Your task to perform on an android device: Go to privacy settings Image 0: 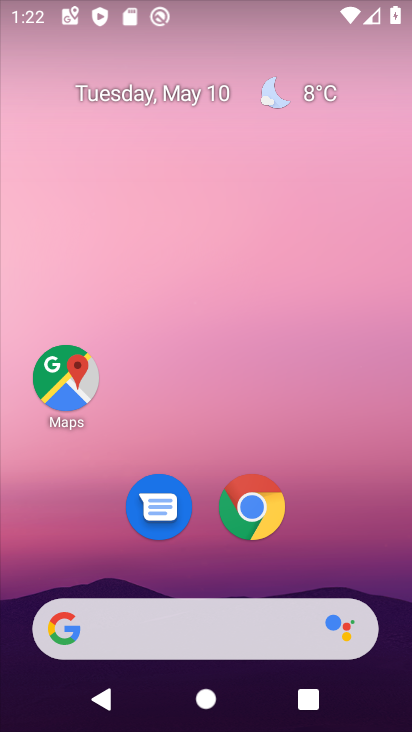
Step 0: drag from (324, 673) to (236, 297)
Your task to perform on an android device: Go to privacy settings Image 1: 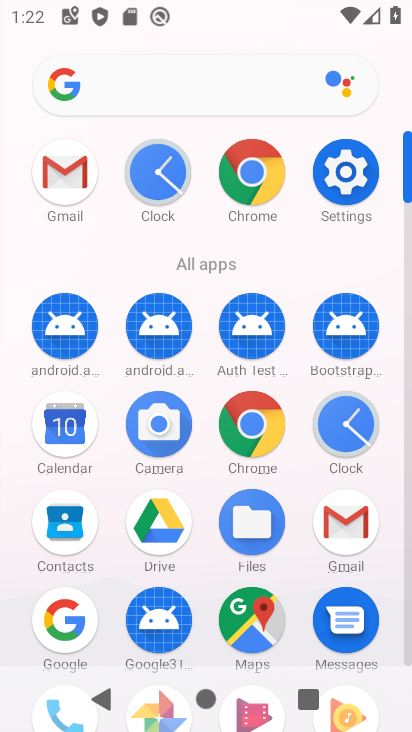
Step 1: click (347, 202)
Your task to perform on an android device: Go to privacy settings Image 2: 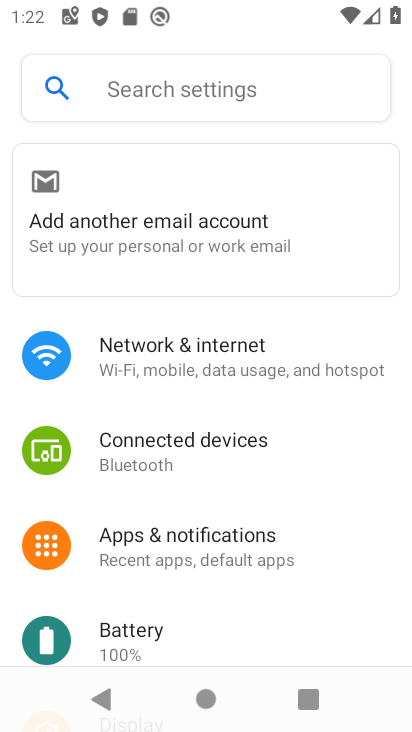
Step 2: drag from (228, 553) to (202, 275)
Your task to perform on an android device: Go to privacy settings Image 3: 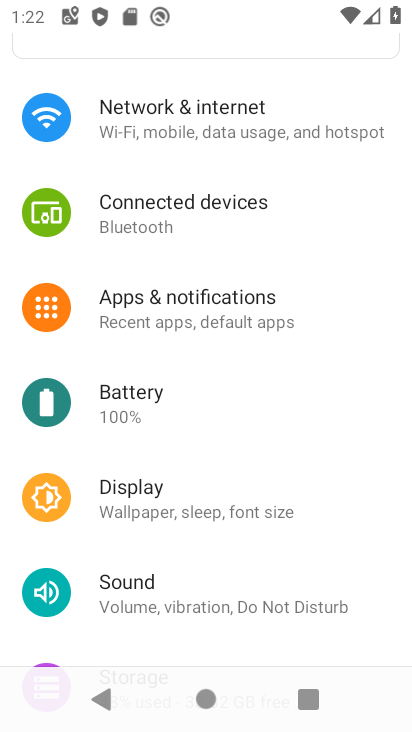
Step 3: drag from (160, 224) to (124, 149)
Your task to perform on an android device: Go to privacy settings Image 4: 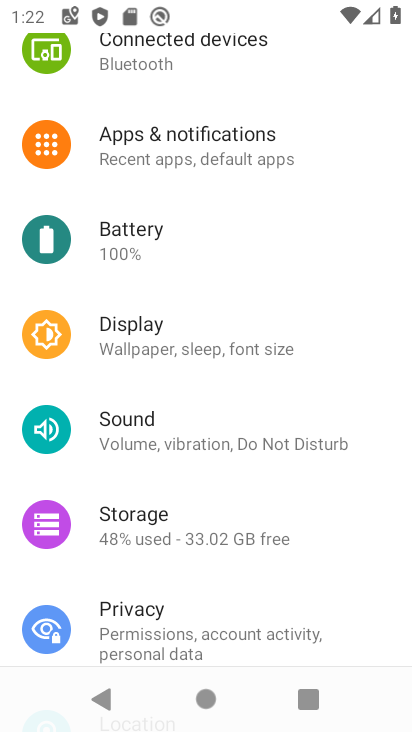
Step 4: click (174, 616)
Your task to perform on an android device: Go to privacy settings Image 5: 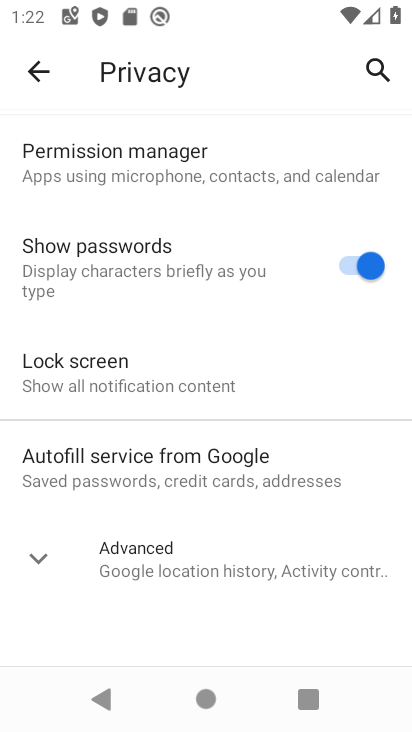
Step 5: task complete